Your task to perform on an android device: Go to Android settings Image 0: 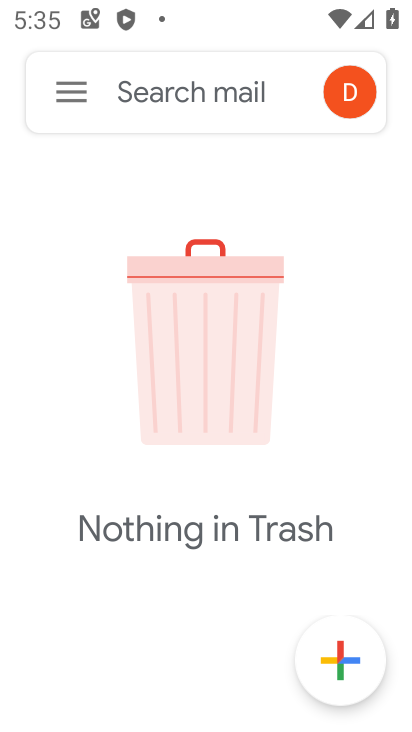
Step 0: press home button
Your task to perform on an android device: Go to Android settings Image 1: 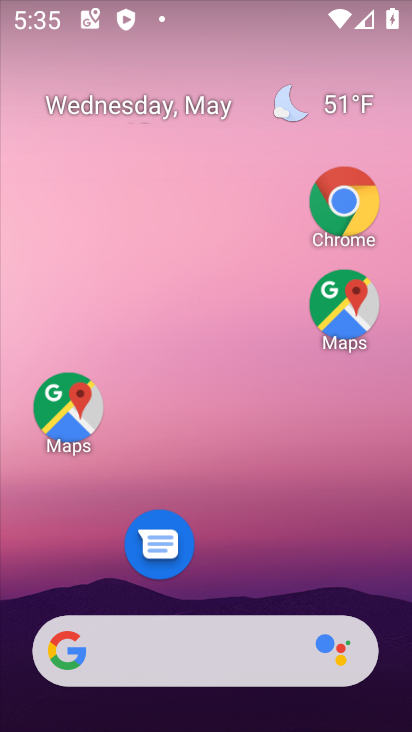
Step 1: drag from (254, 510) to (202, 89)
Your task to perform on an android device: Go to Android settings Image 2: 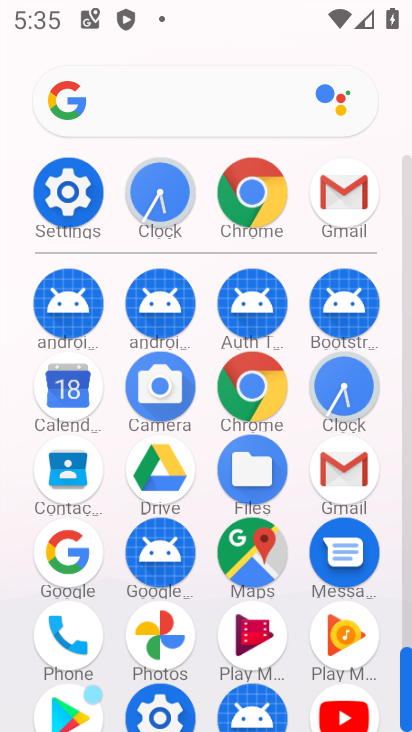
Step 2: click (74, 200)
Your task to perform on an android device: Go to Android settings Image 3: 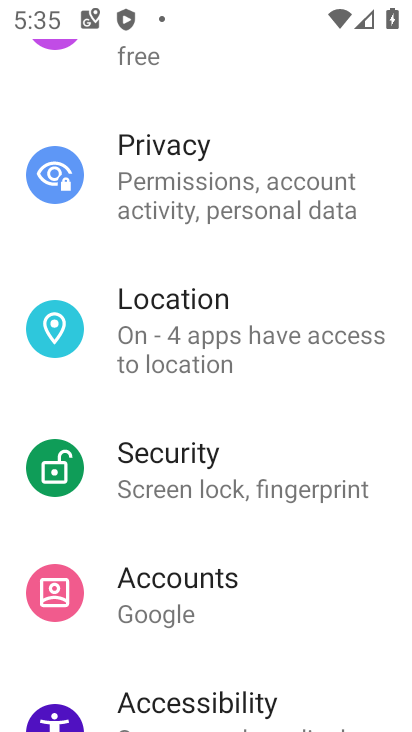
Step 3: drag from (209, 646) to (187, 153)
Your task to perform on an android device: Go to Android settings Image 4: 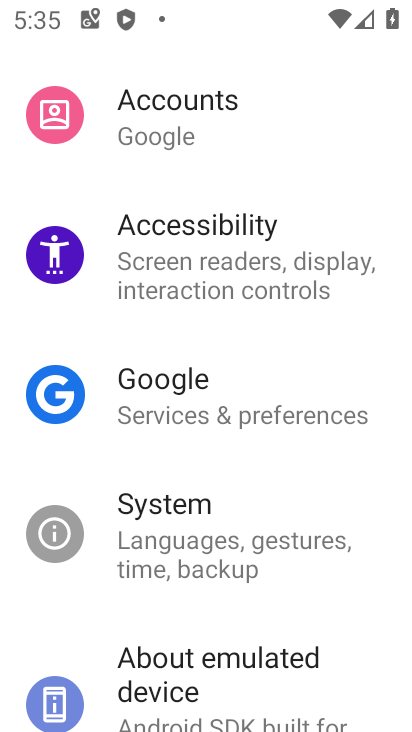
Step 4: click (198, 682)
Your task to perform on an android device: Go to Android settings Image 5: 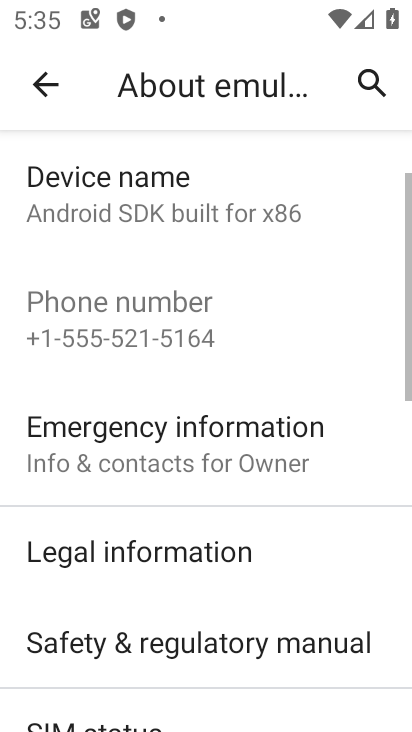
Step 5: drag from (174, 662) to (182, 326)
Your task to perform on an android device: Go to Android settings Image 6: 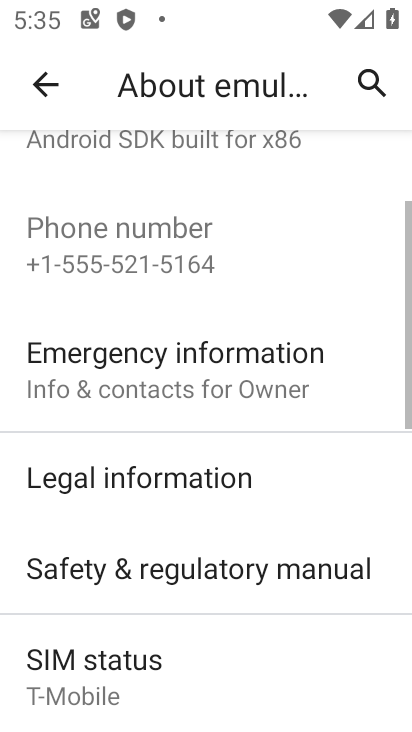
Step 6: drag from (166, 640) to (159, 331)
Your task to perform on an android device: Go to Android settings Image 7: 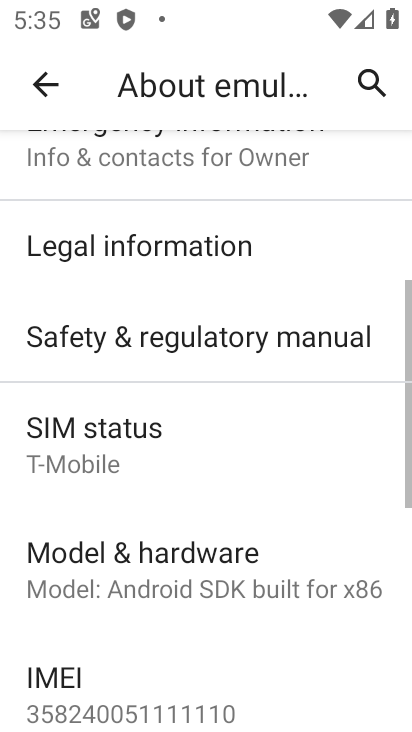
Step 7: drag from (169, 630) to (206, 295)
Your task to perform on an android device: Go to Android settings Image 8: 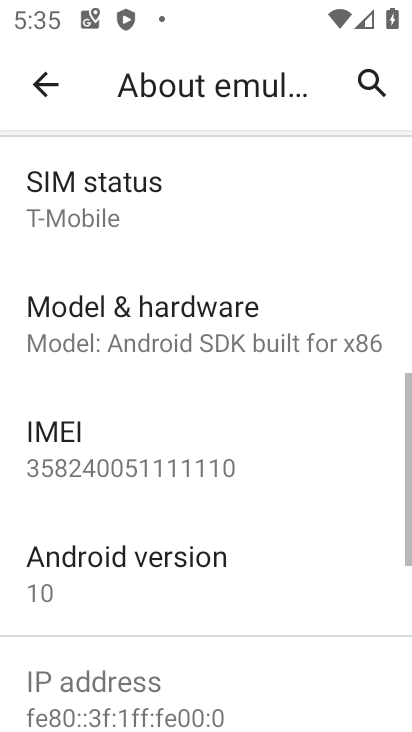
Step 8: click (170, 604)
Your task to perform on an android device: Go to Android settings Image 9: 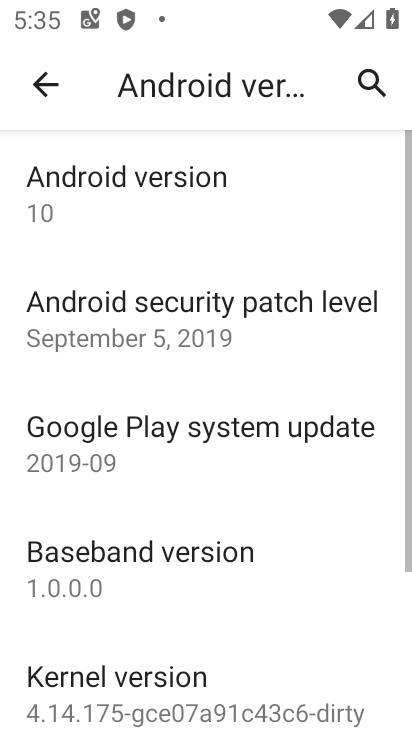
Step 9: task complete